Your task to perform on an android device: turn off notifications in google photos Image 0: 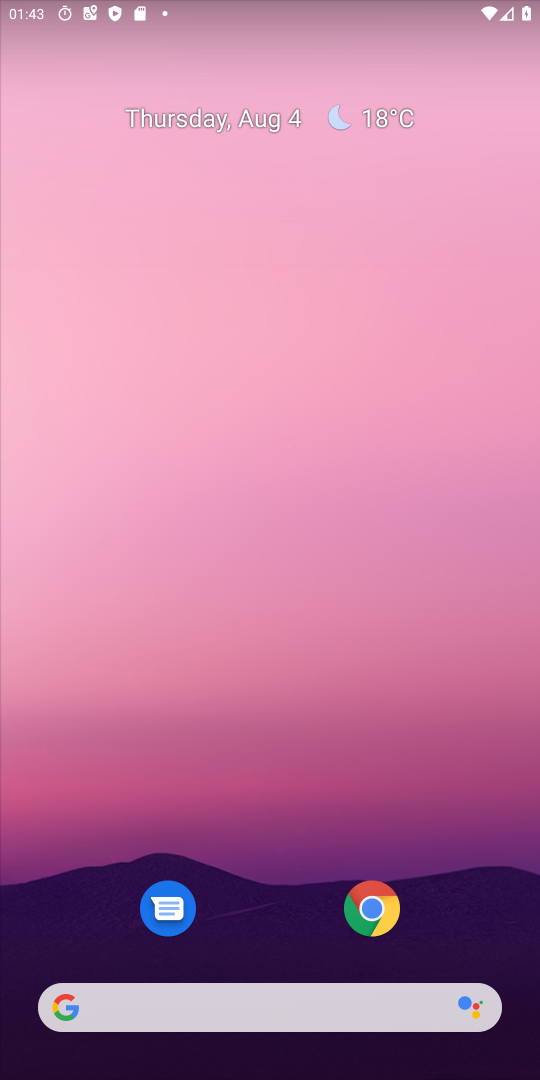
Step 0: press home button
Your task to perform on an android device: turn off notifications in google photos Image 1: 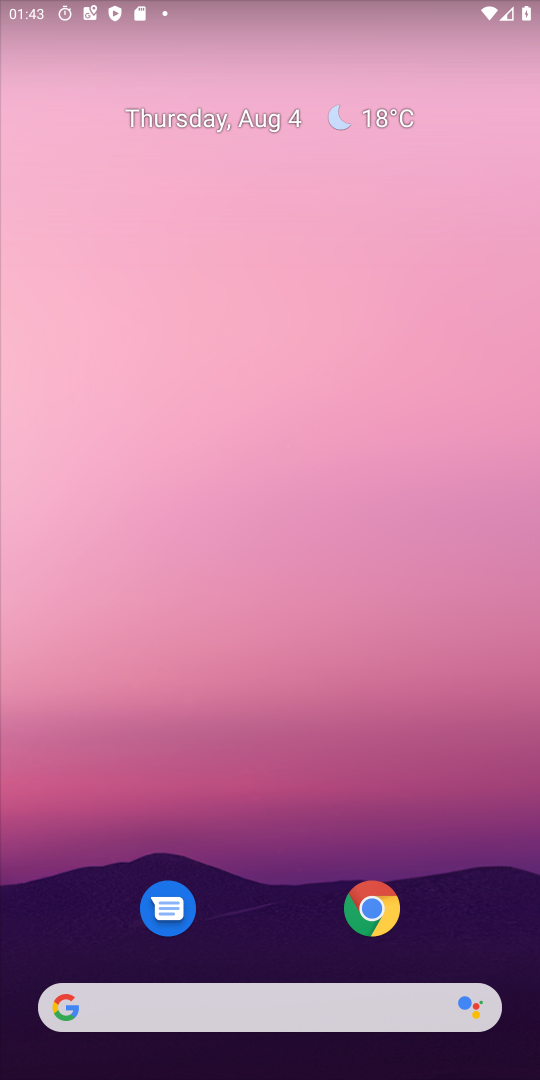
Step 1: drag from (224, 1026) to (79, 362)
Your task to perform on an android device: turn off notifications in google photos Image 2: 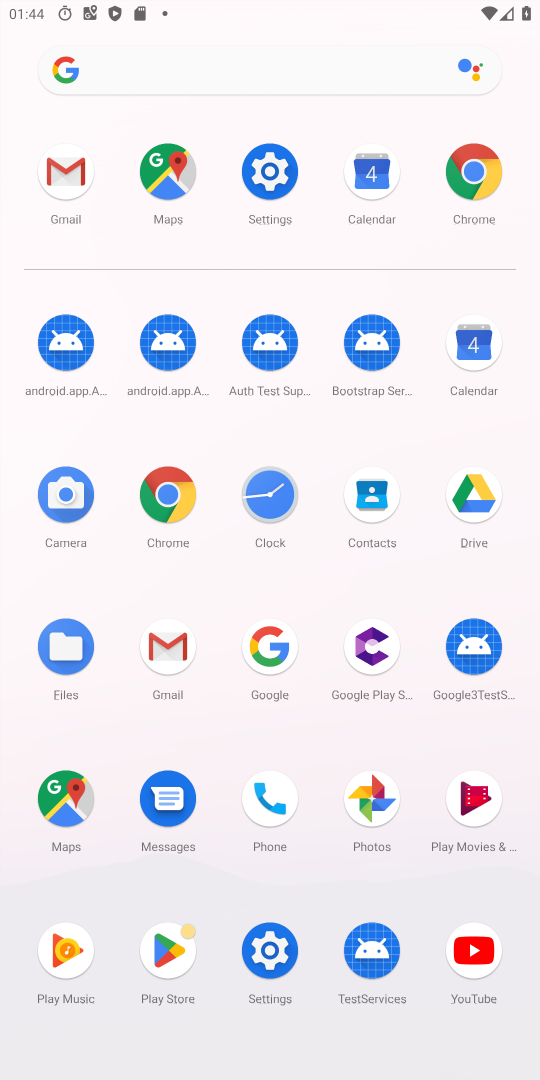
Step 2: click (371, 810)
Your task to perform on an android device: turn off notifications in google photos Image 3: 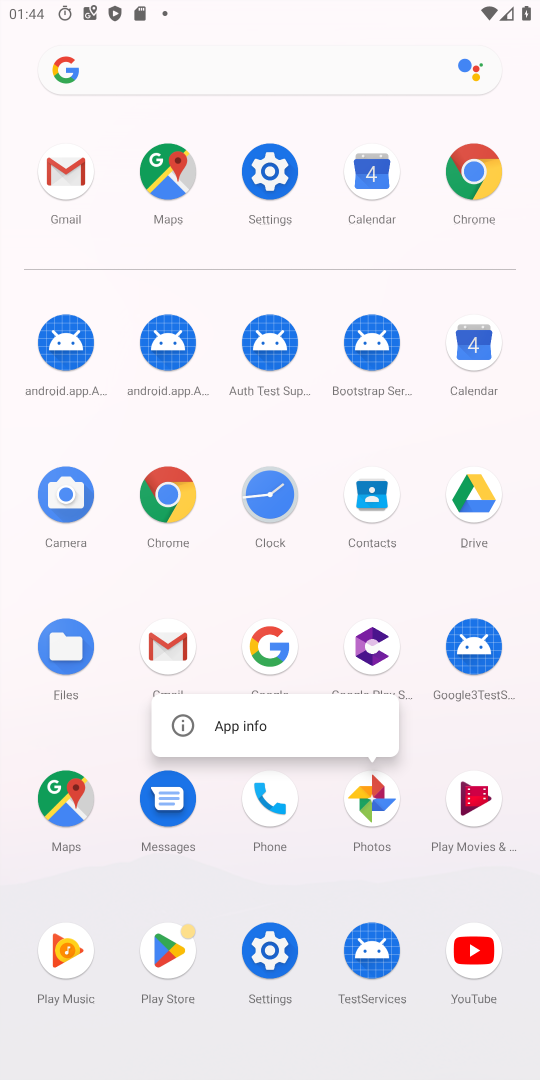
Step 3: click (355, 808)
Your task to perform on an android device: turn off notifications in google photos Image 4: 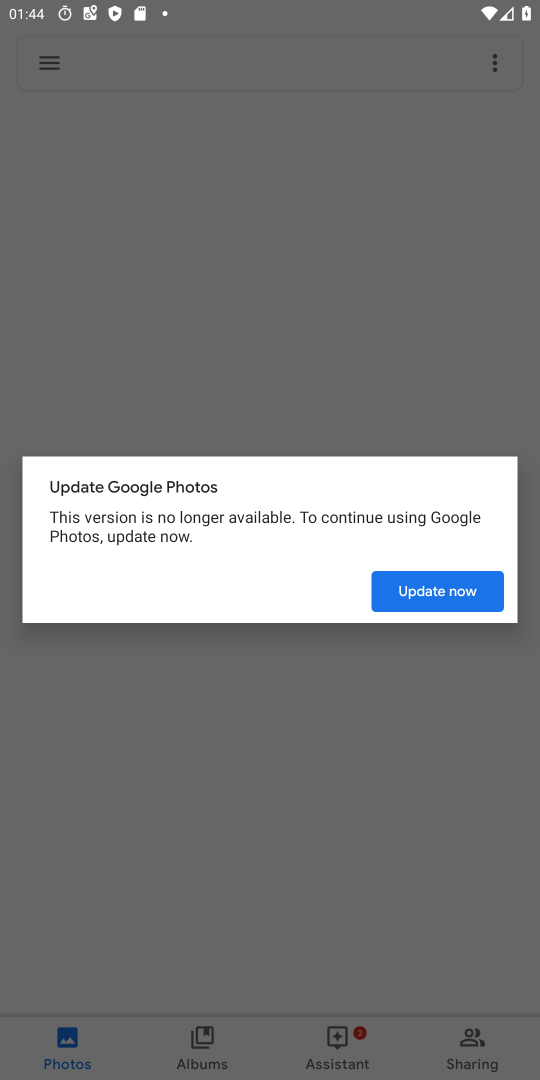
Step 4: click (451, 600)
Your task to perform on an android device: turn off notifications in google photos Image 5: 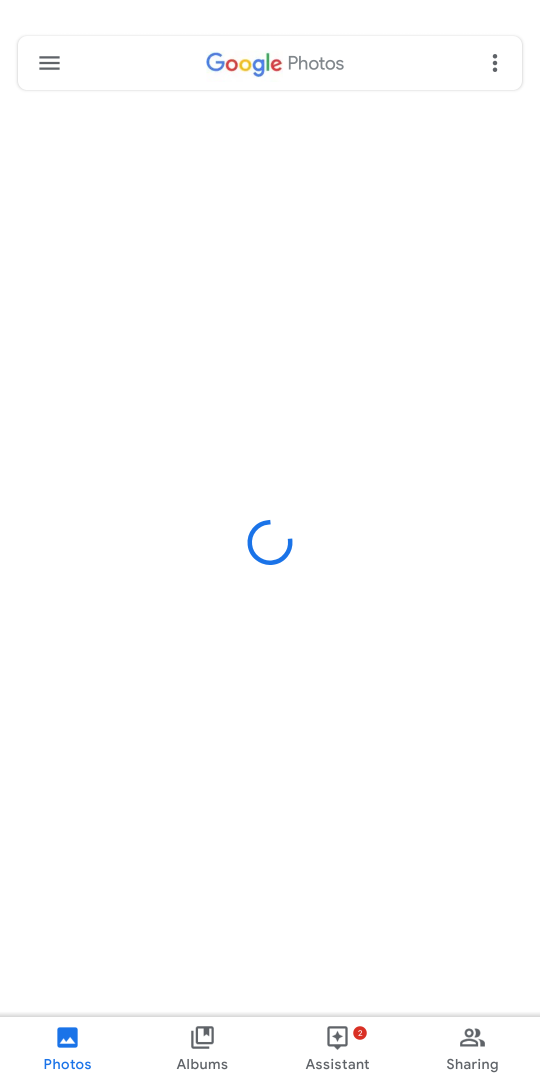
Step 5: click (36, 56)
Your task to perform on an android device: turn off notifications in google photos Image 6: 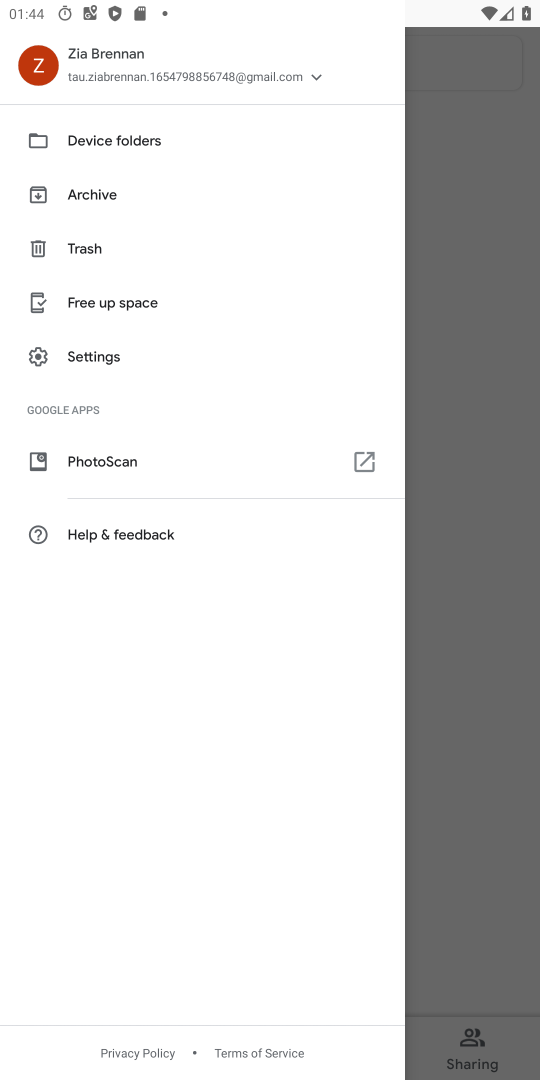
Step 6: click (102, 351)
Your task to perform on an android device: turn off notifications in google photos Image 7: 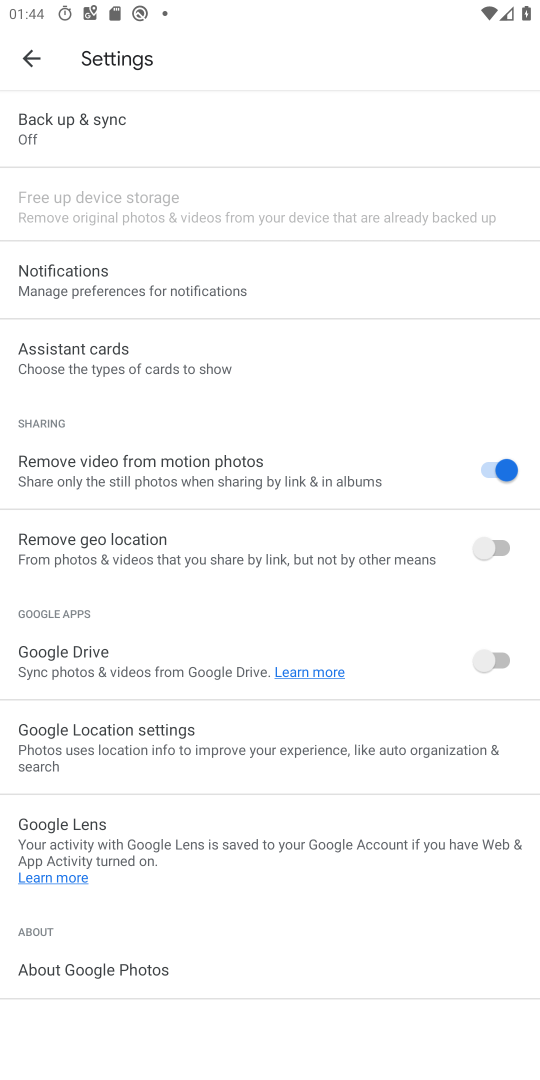
Step 7: click (152, 293)
Your task to perform on an android device: turn off notifications in google photos Image 8: 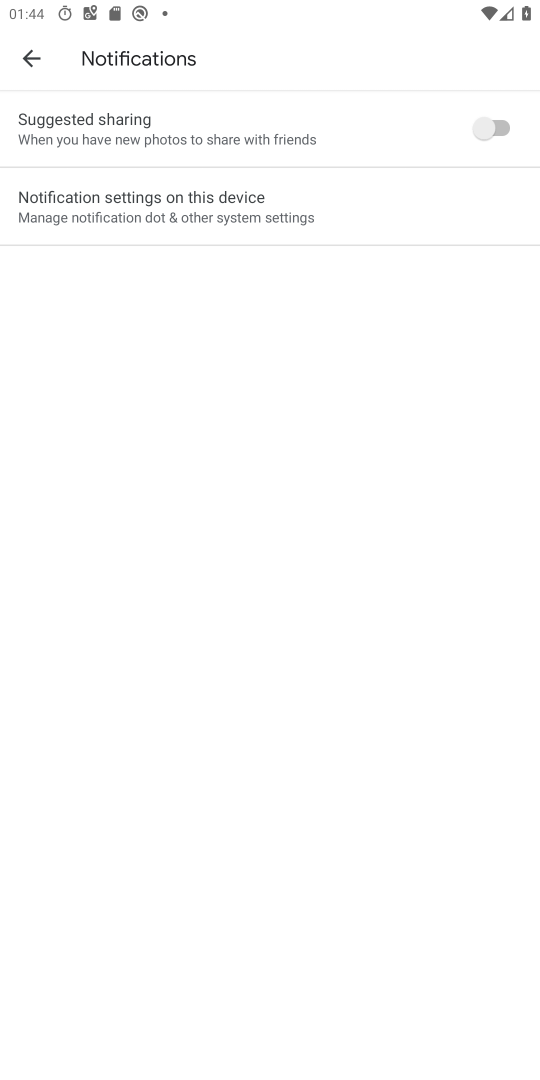
Step 8: click (186, 219)
Your task to perform on an android device: turn off notifications in google photos Image 9: 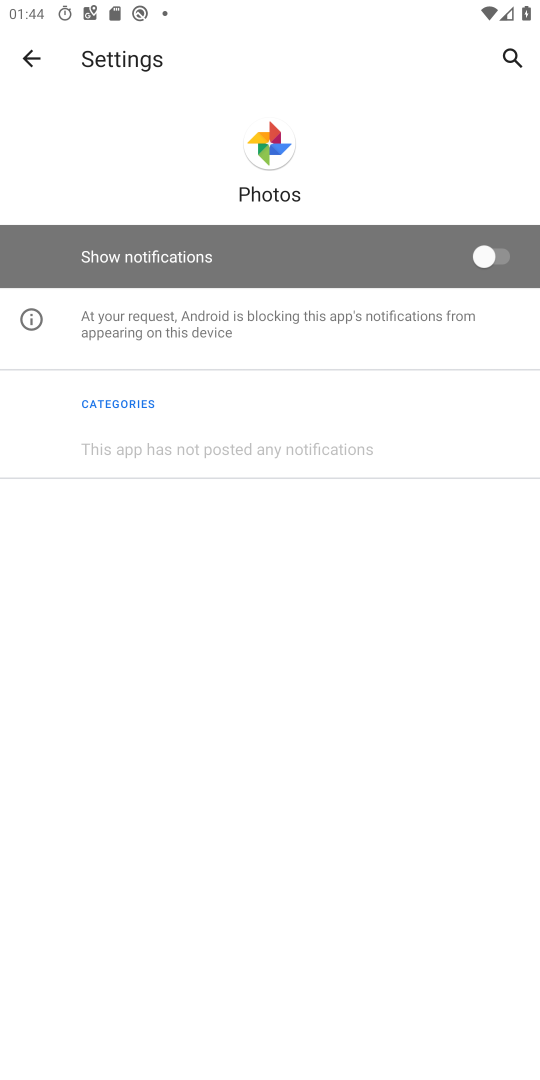
Step 9: click (495, 265)
Your task to perform on an android device: turn off notifications in google photos Image 10: 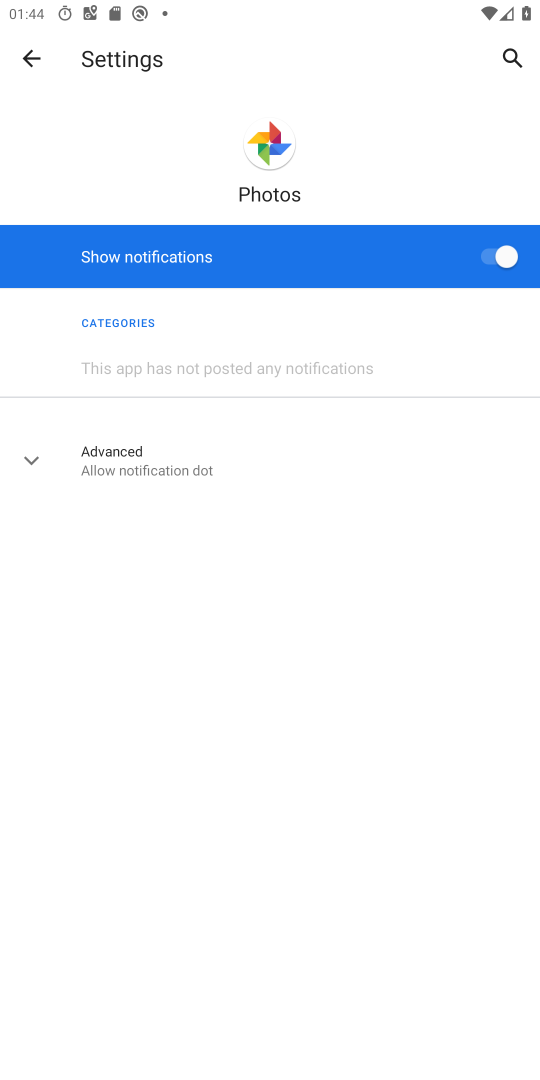
Step 10: click (492, 257)
Your task to perform on an android device: turn off notifications in google photos Image 11: 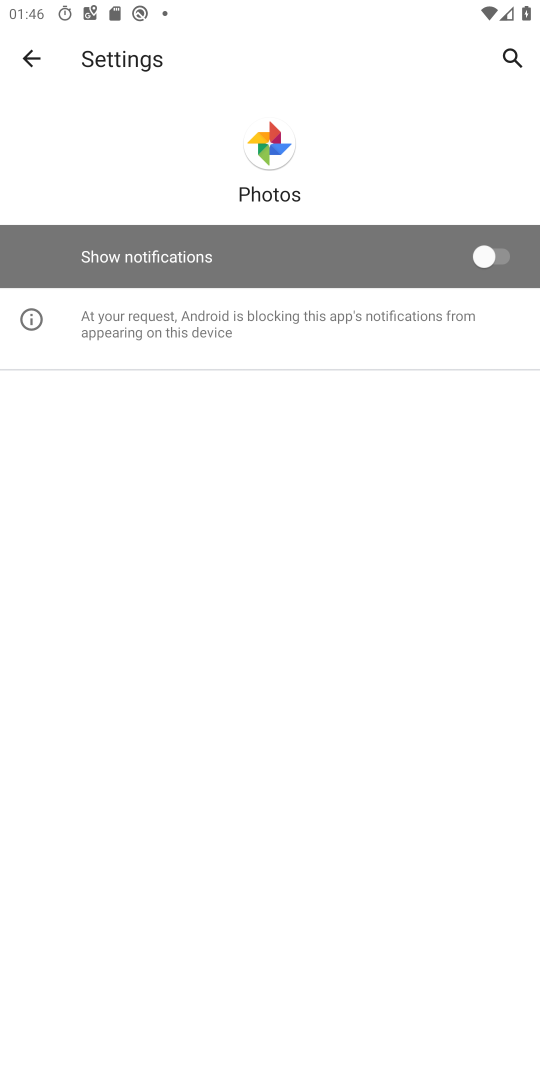
Step 11: task complete